Your task to perform on an android device: Find coffee shops on Maps Image 0: 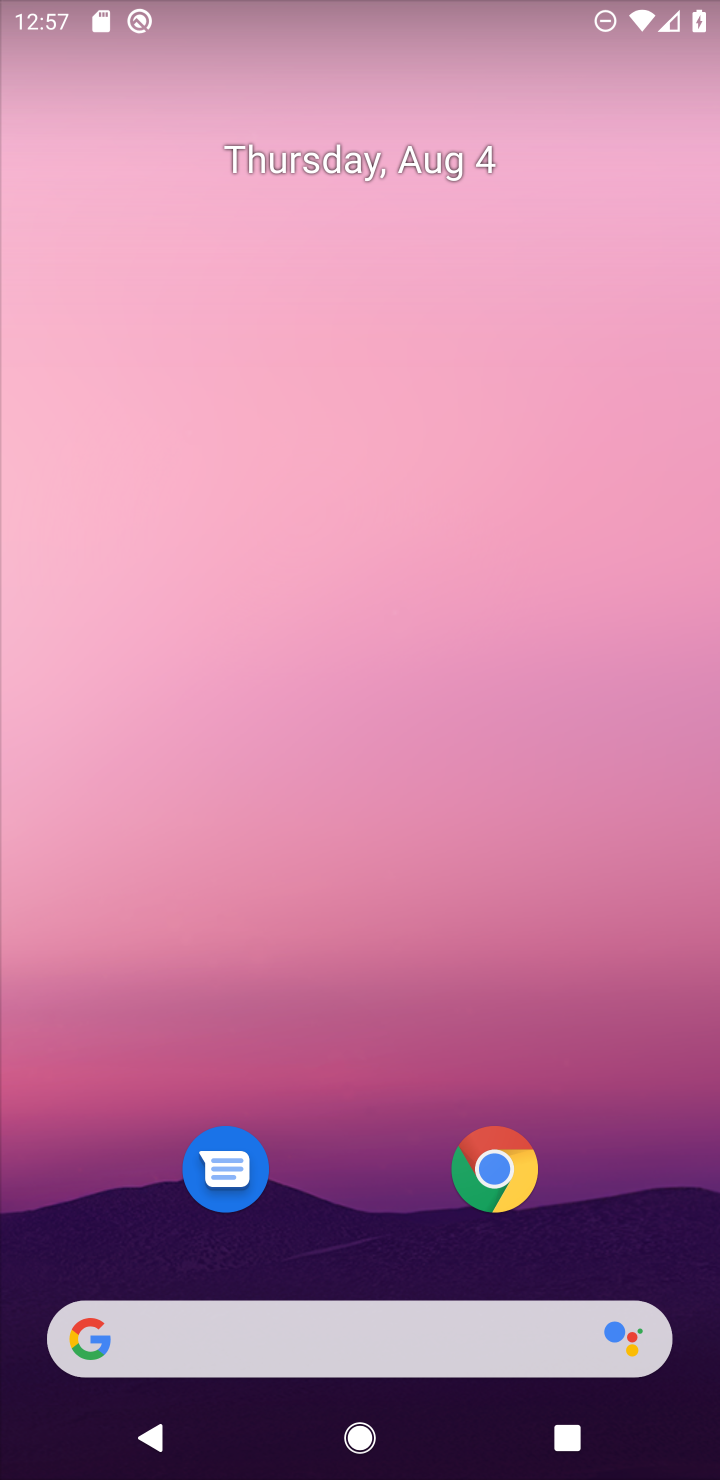
Step 0: drag from (398, 1241) to (374, 5)
Your task to perform on an android device: Find coffee shops on Maps Image 1: 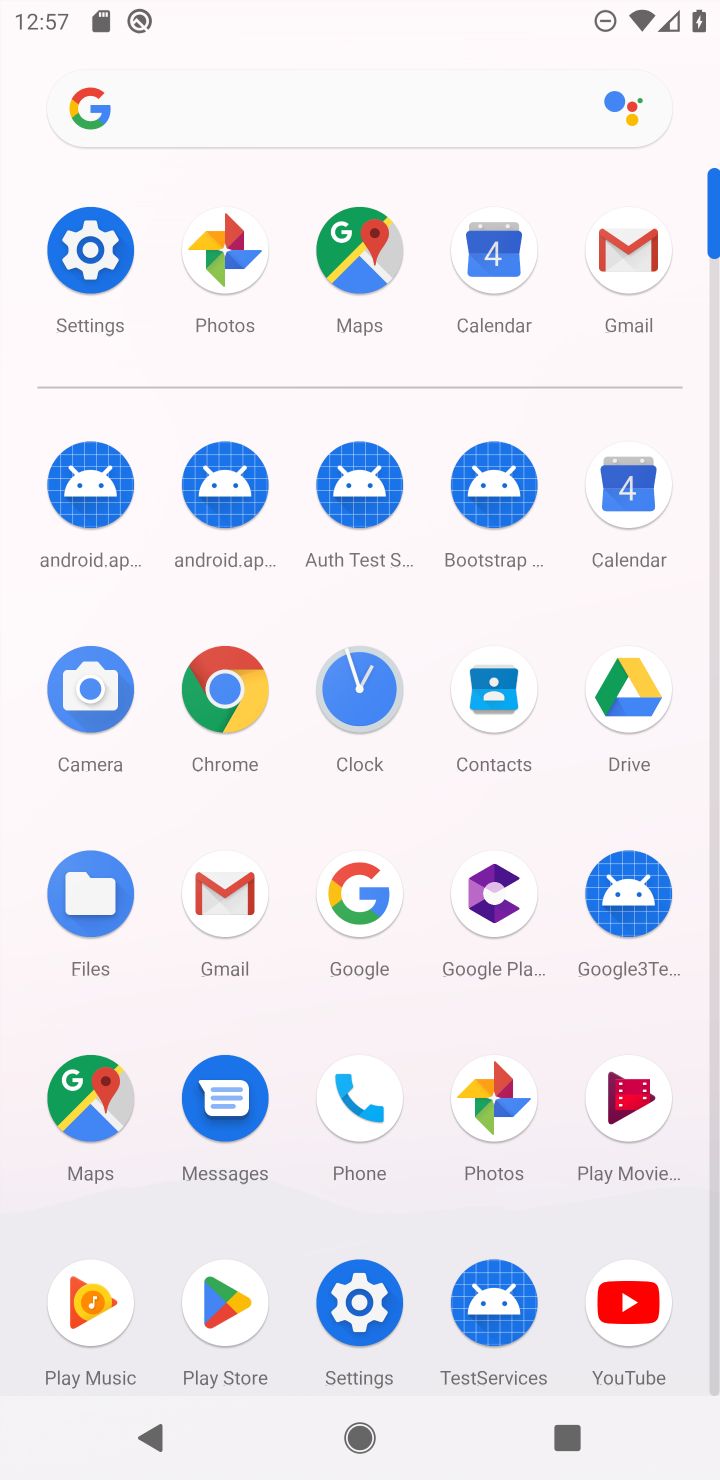
Step 1: click (356, 257)
Your task to perform on an android device: Find coffee shops on Maps Image 2: 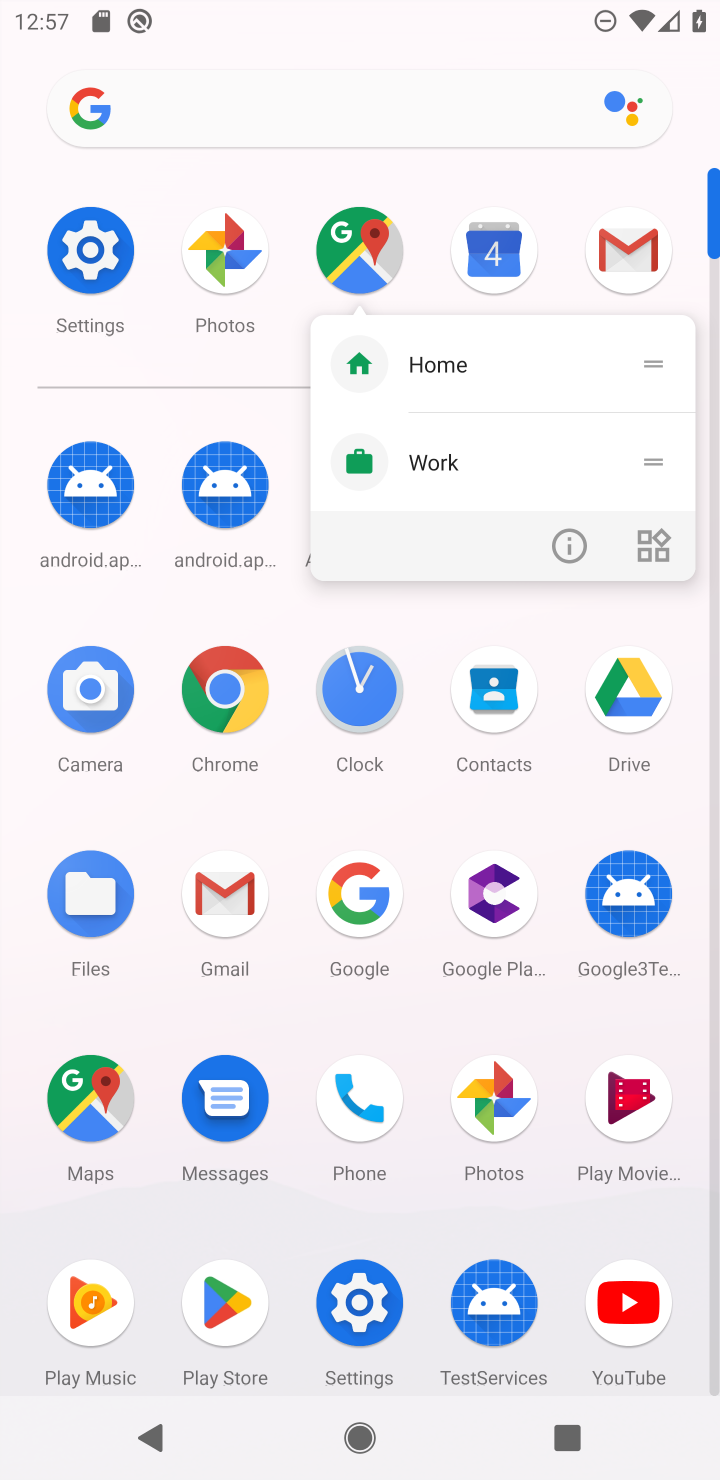
Step 2: click (360, 254)
Your task to perform on an android device: Find coffee shops on Maps Image 3: 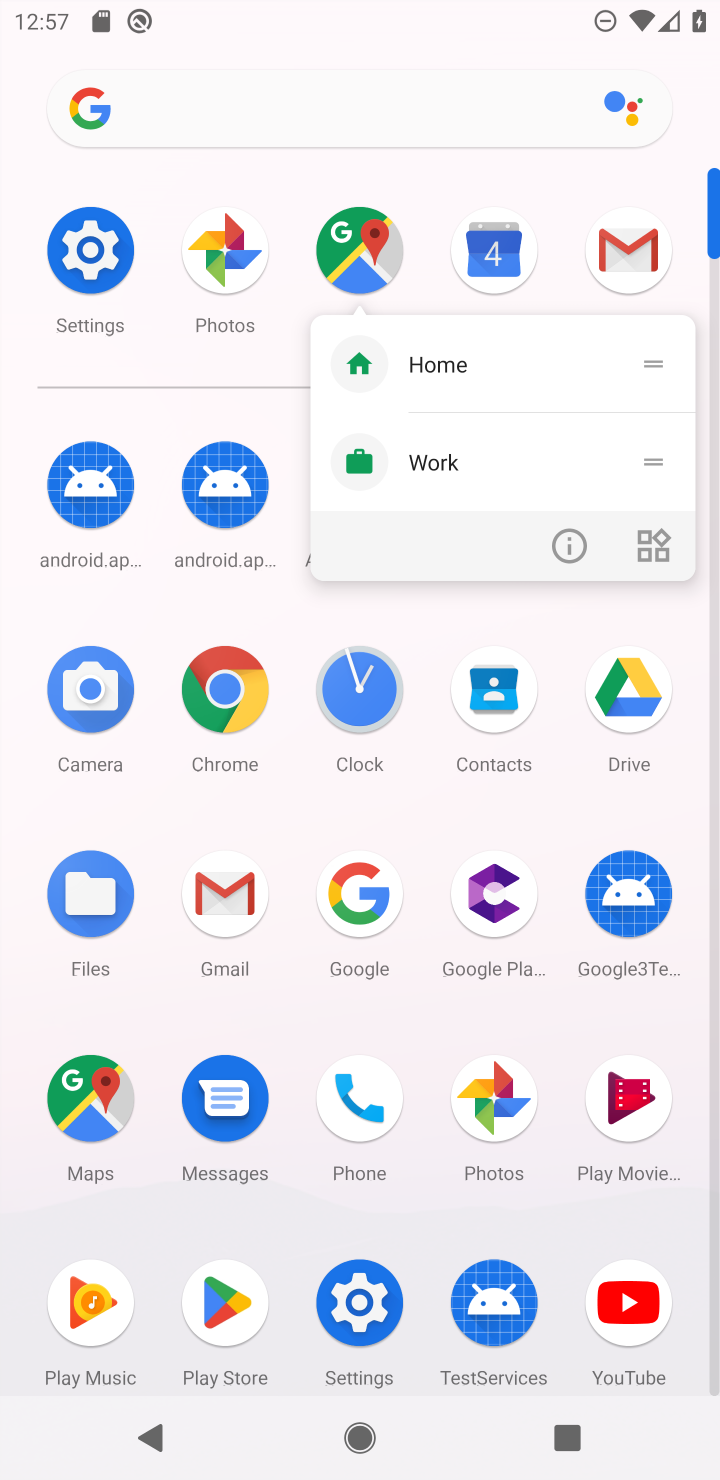
Step 3: click (360, 254)
Your task to perform on an android device: Find coffee shops on Maps Image 4: 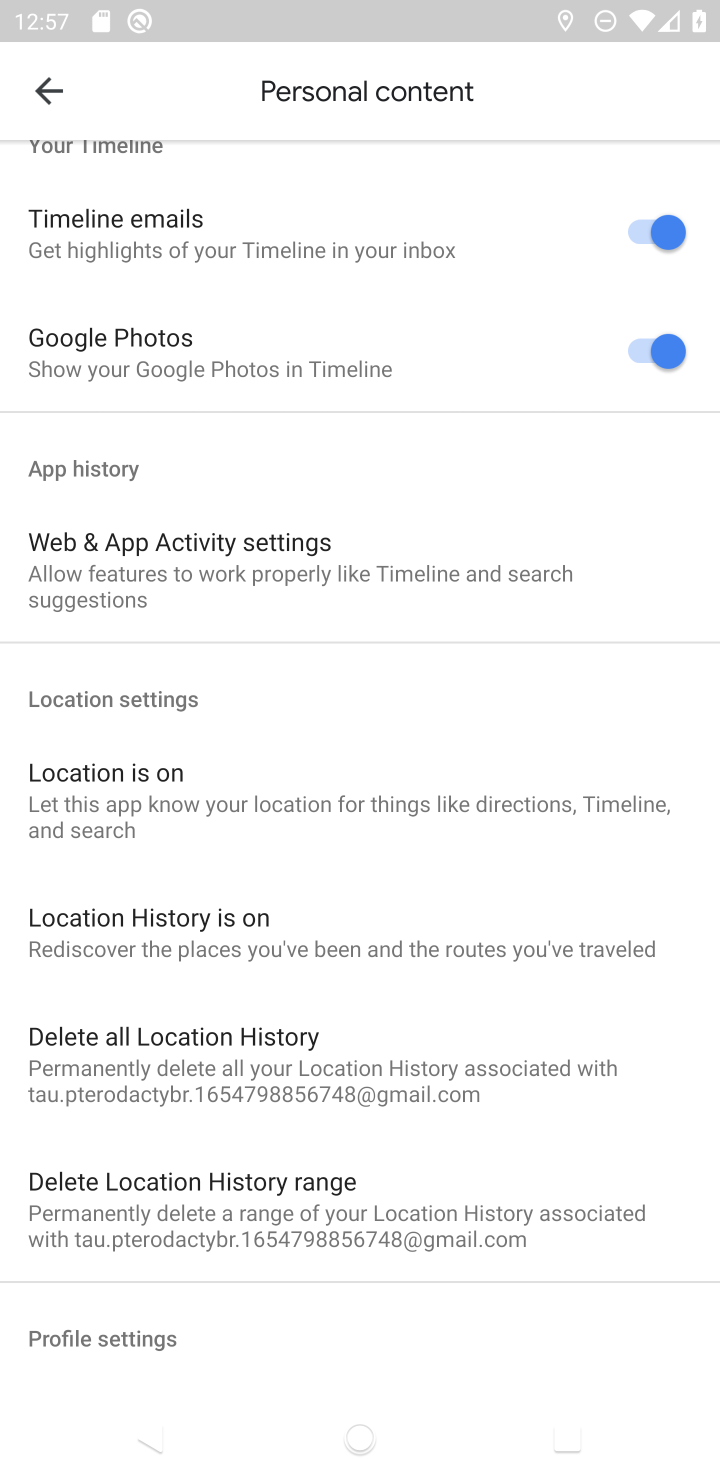
Step 4: click (31, 95)
Your task to perform on an android device: Find coffee shops on Maps Image 5: 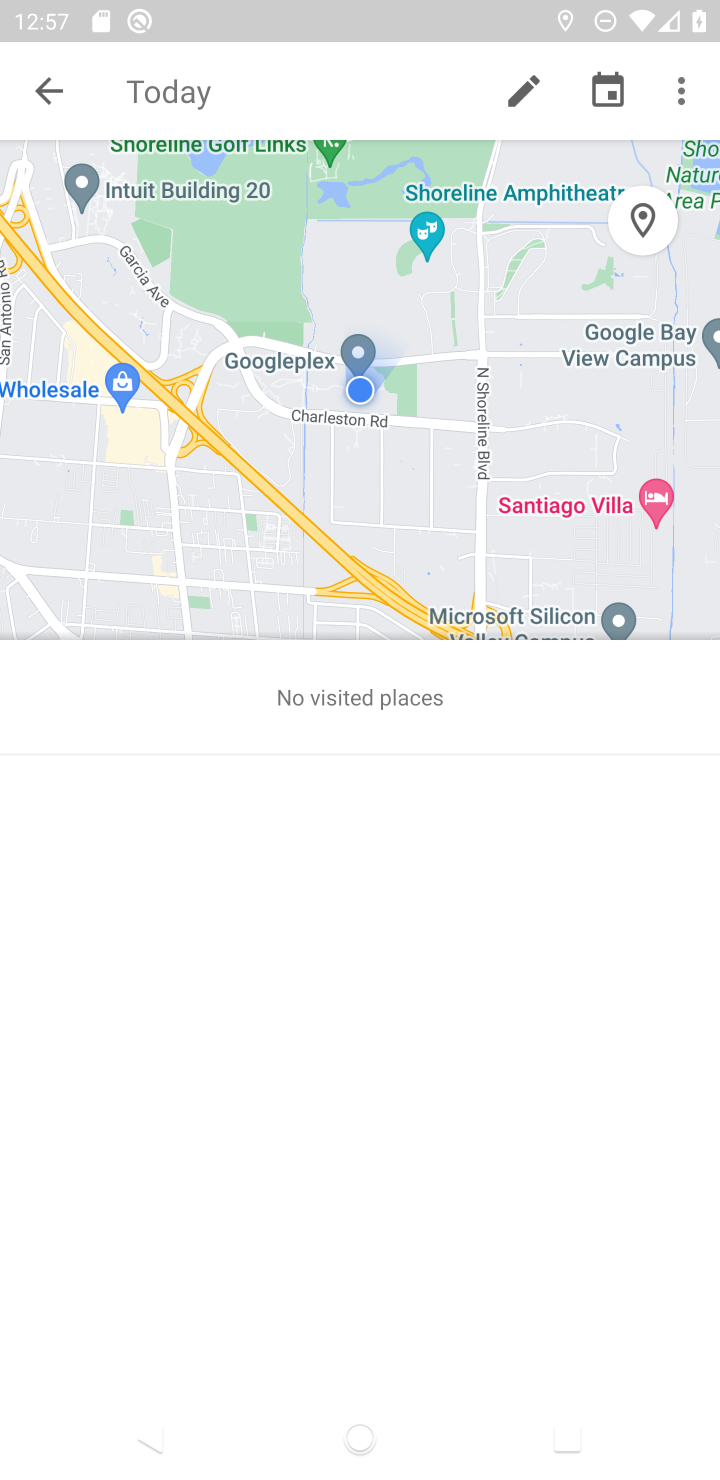
Step 5: click (54, 98)
Your task to perform on an android device: Find coffee shops on Maps Image 6: 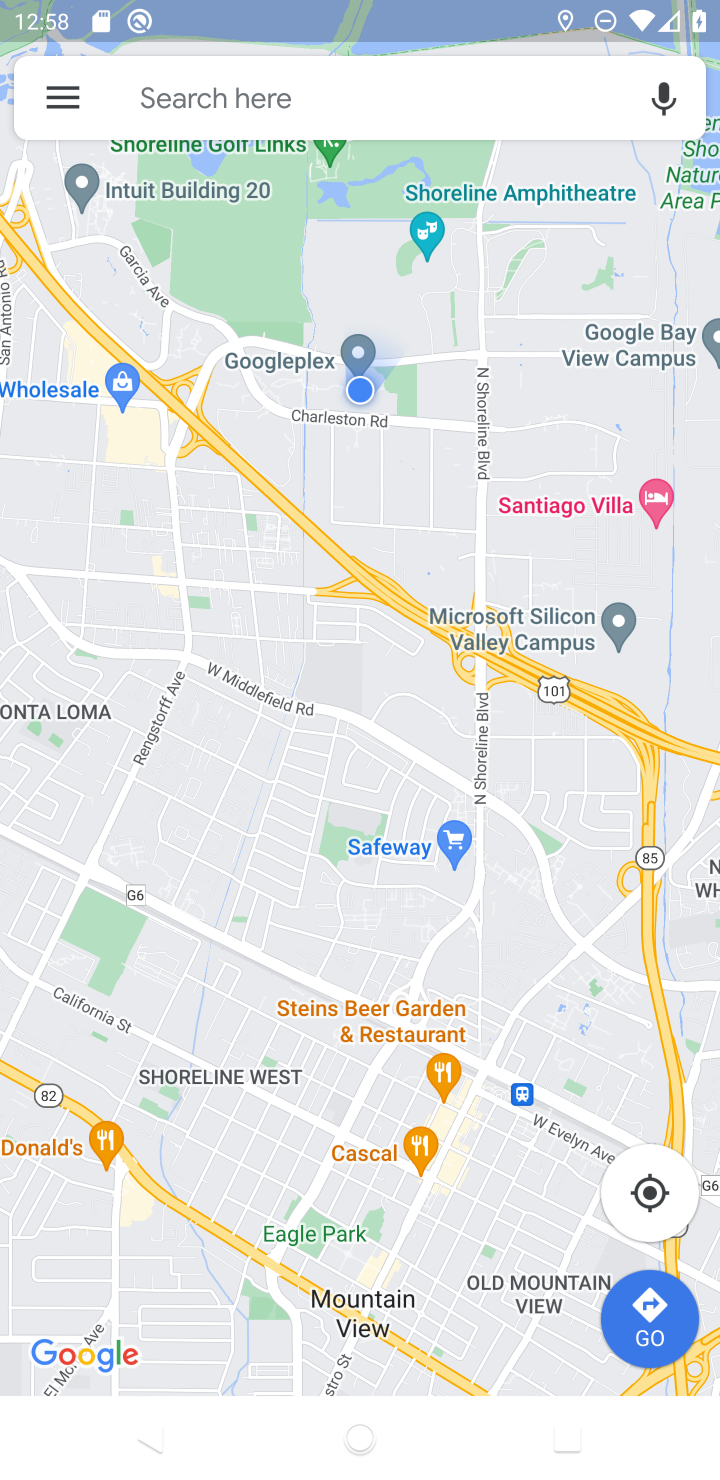
Step 6: click (252, 92)
Your task to perform on an android device: Find coffee shops on Maps Image 7: 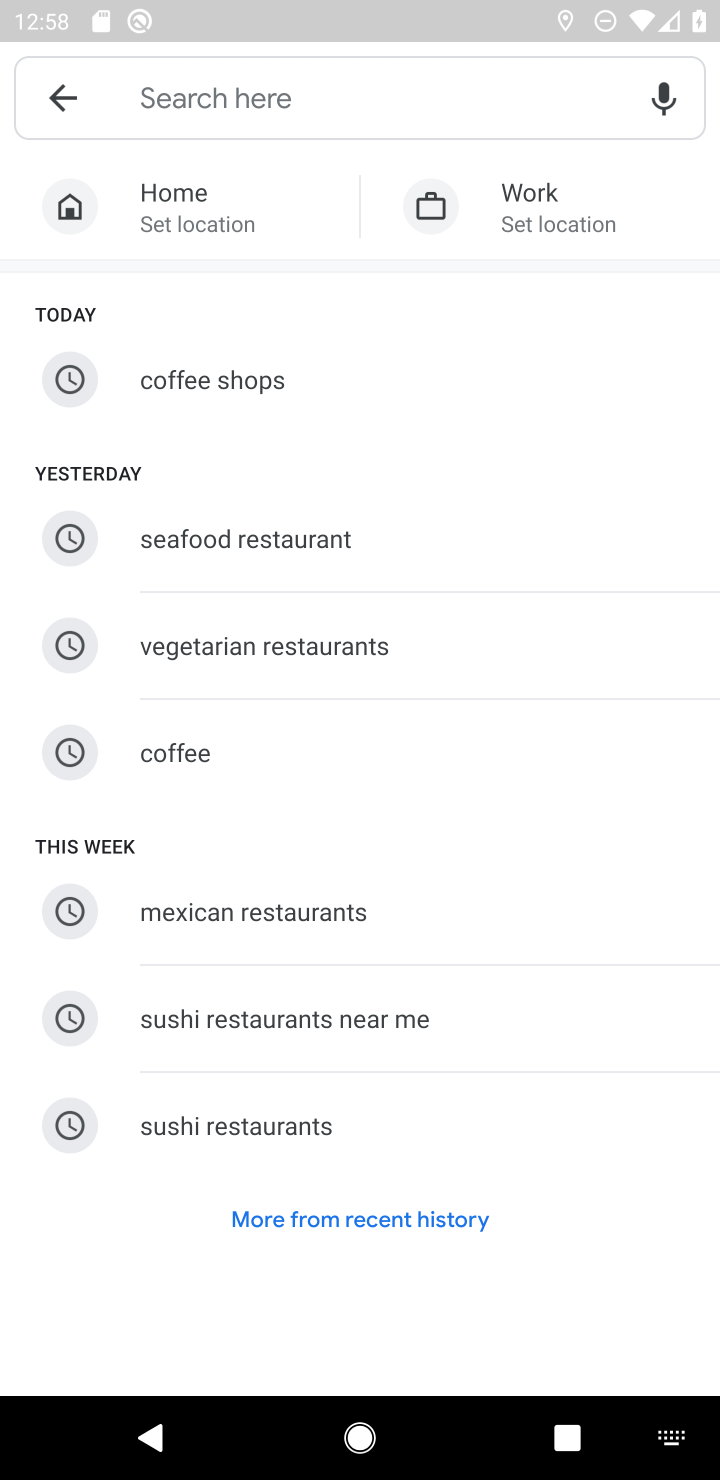
Step 7: type "coffee shops"
Your task to perform on an android device: Find coffee shops on Maps Image 8: 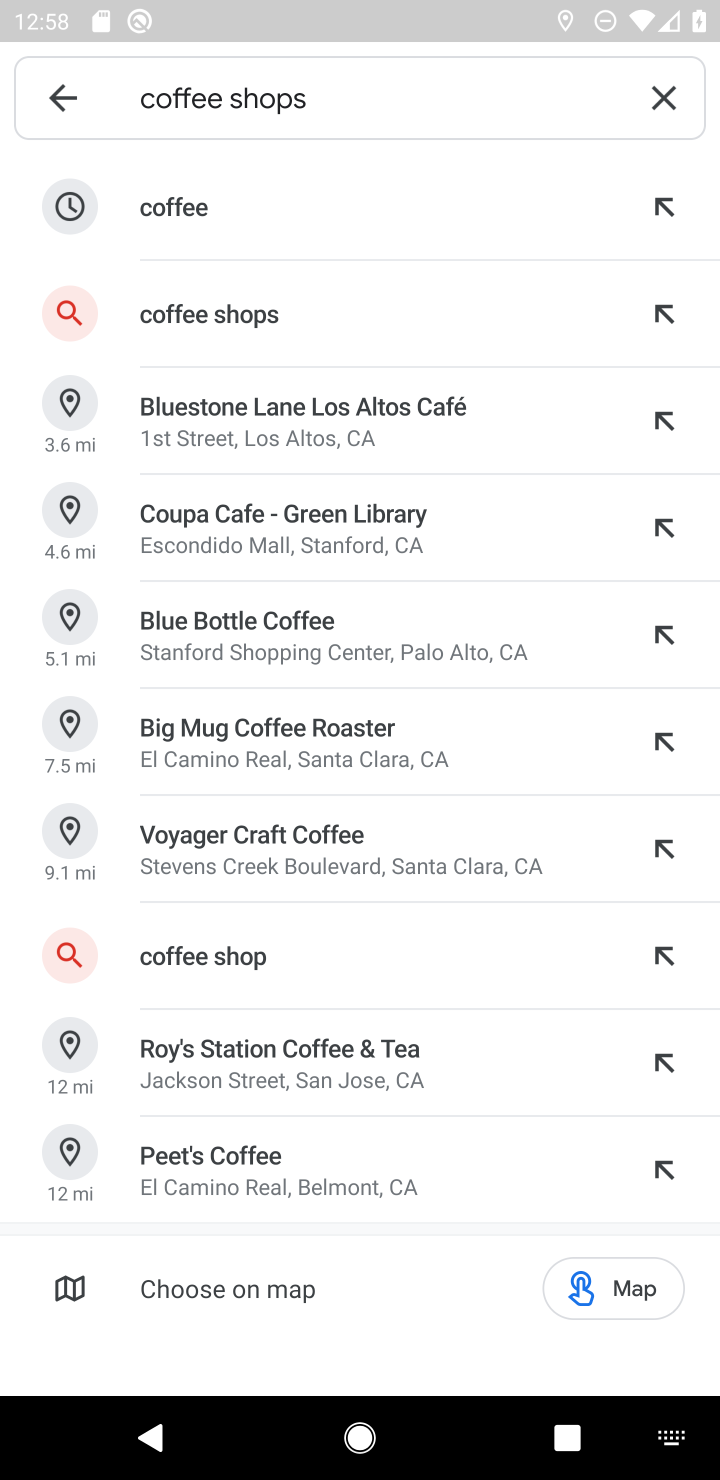
Step 8: click (260, 331)
Your task to perform on an android device: Find coffee shops on Maps Image 9: 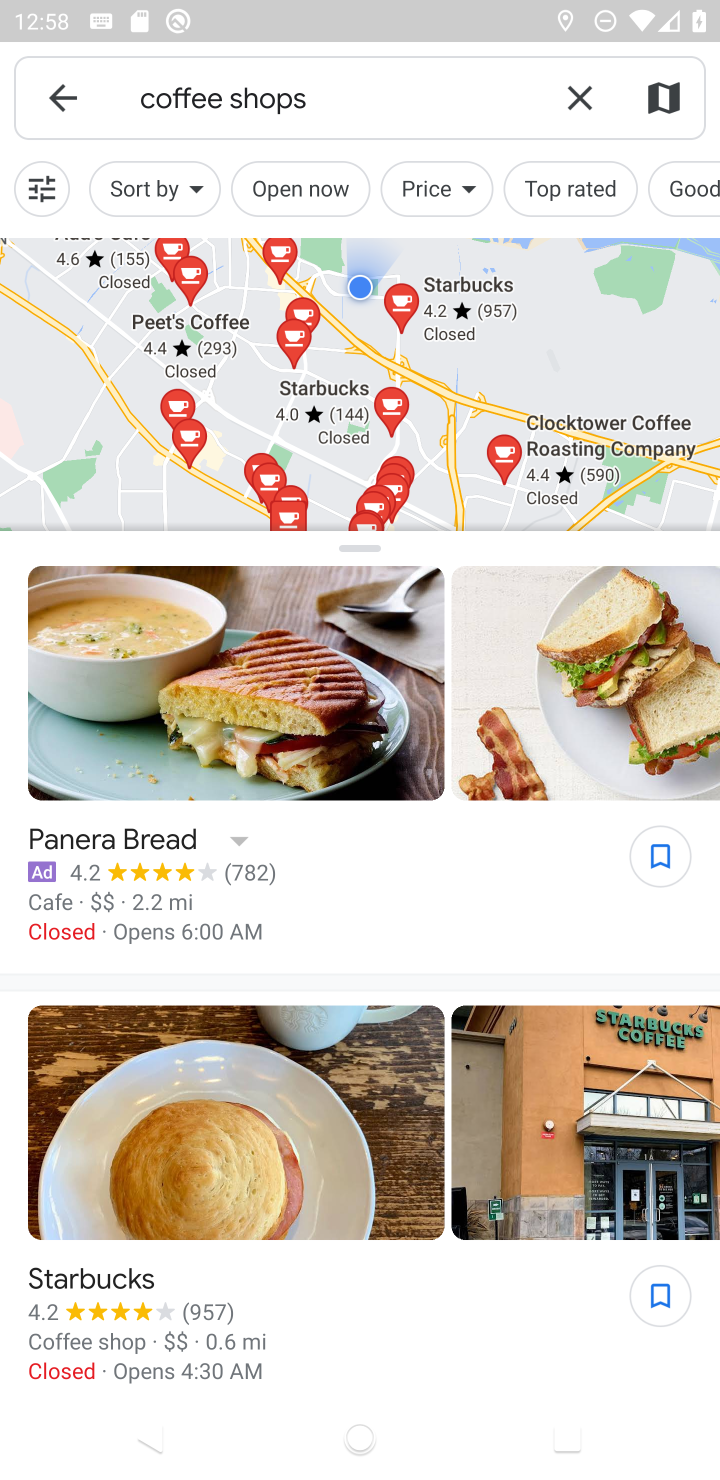
Step 9: task complete